Your task to perform on an android device: check android version Image 0: 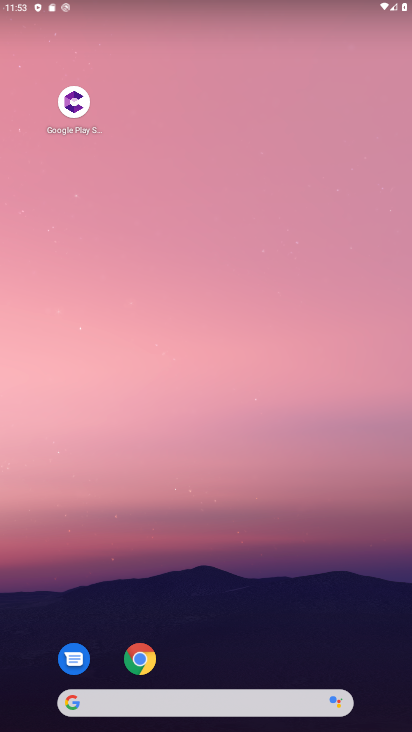
Step 0: click (200, 231)
Your task to perform on an android device: check android version Image 1: 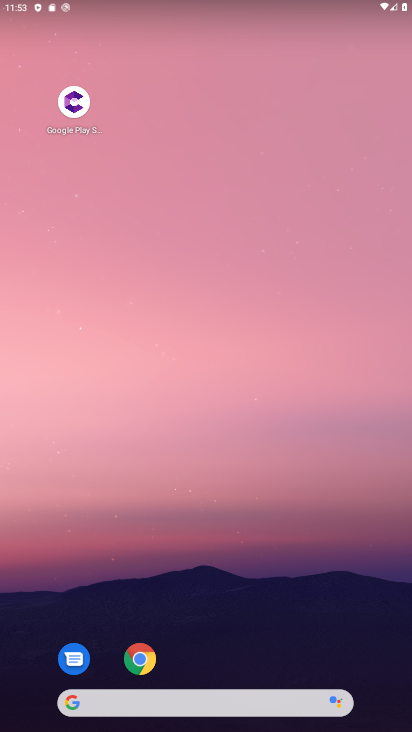
Step 1: drag from (190, 662) to (197, 196)
Your task to perform on an android device: check android version Image 2: 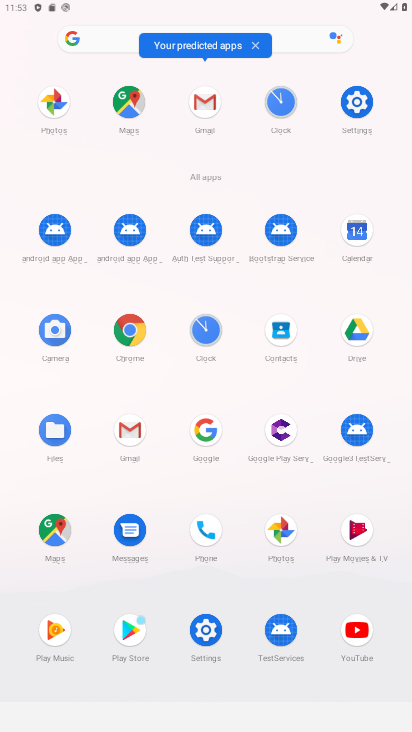
Step 2: click (362, 108)
Your task to perform on an android device: check android version Image 3: 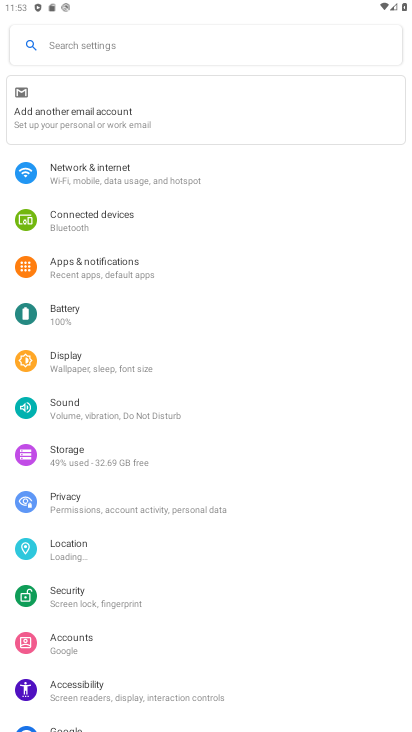
Step 3: drag from (113, 706) to (219, 287)
Your task to perform on an android device: check android version Image 4: 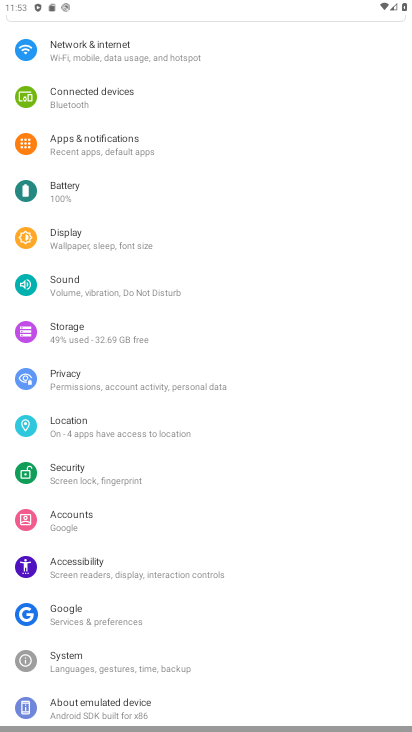
Step 4: drag from (98, 678) to (171, 365)
Your task to perform on an android device: check android version Image 5: 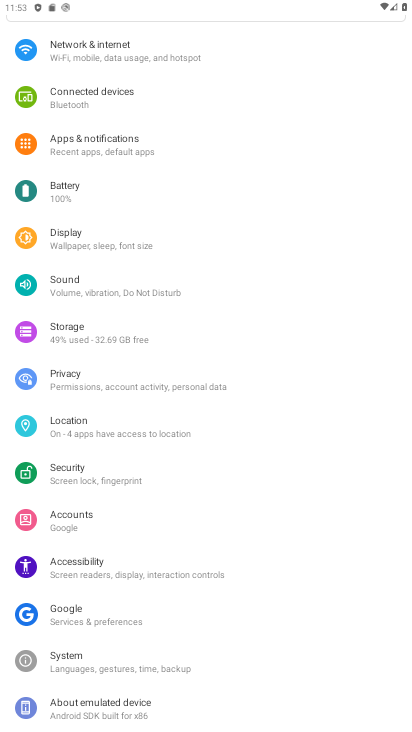
Step 5: click (85, 698)
Your task to perform on an android device: check android version Image 6: 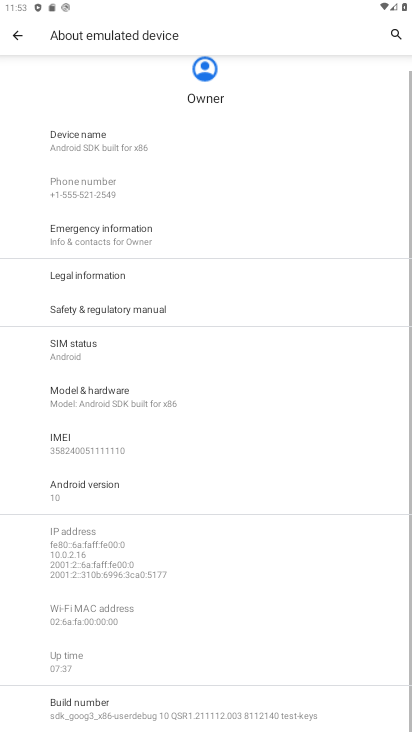
Step 6: click (78, 504)
Your task to perform on an android device: check android version Image 7: 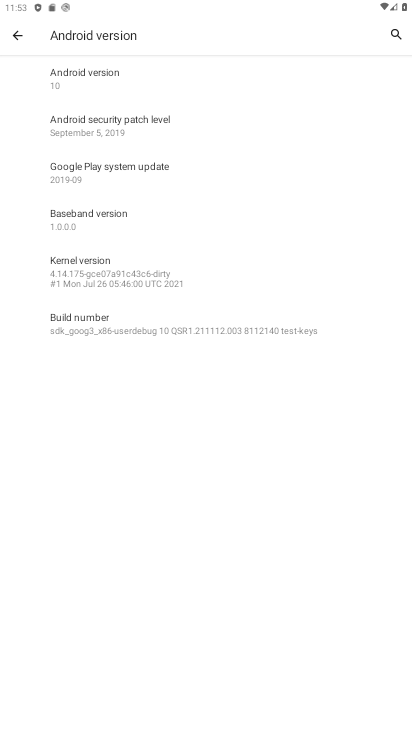
Step 7: task complete